Your task to perform on an android device: open chrome privacy settings Image 0: 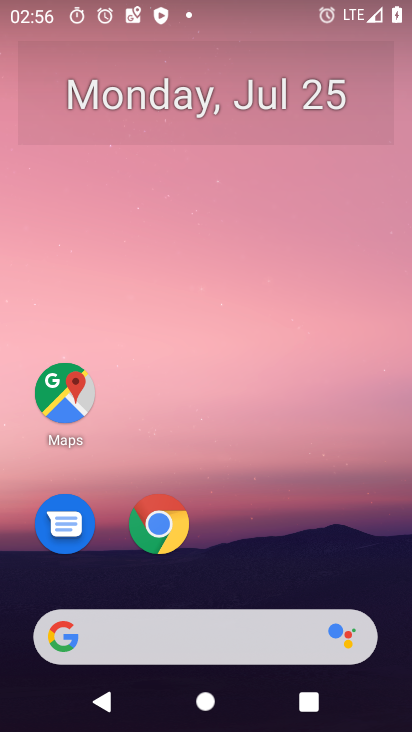
Step 0: drag from (298, 595) to (319, 431)
Your task to perform on an android device: open chrome privacy settings Image 1: 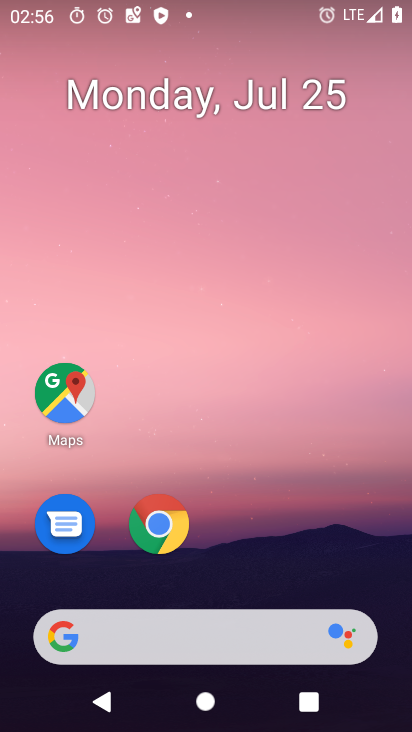
Step 1: drag from (279, 560) to (341, 50)
Your task to perform on an android device: open chrome privacy settings Image 2: 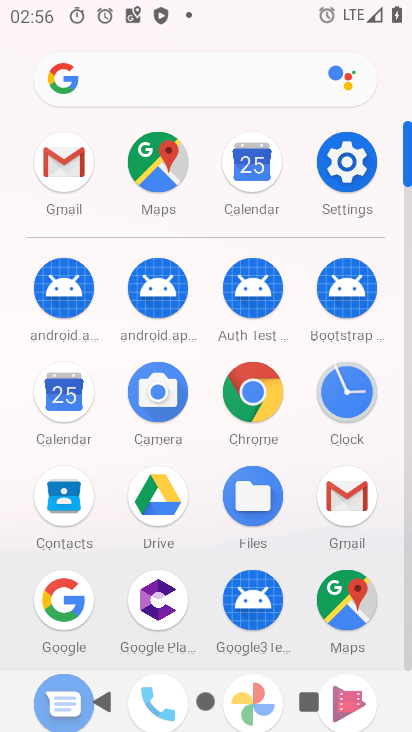
Step 2: click (261, 389)
Your task to perform on an android device: open chrome privacy settings Image 3: 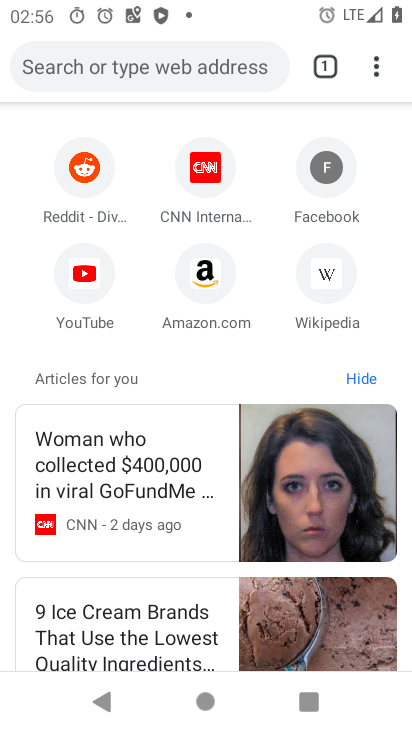
Step 3: drag from (377, 66) to (137, 558)
Your task to perform on an android device: open chrome privacy settings Image 4: 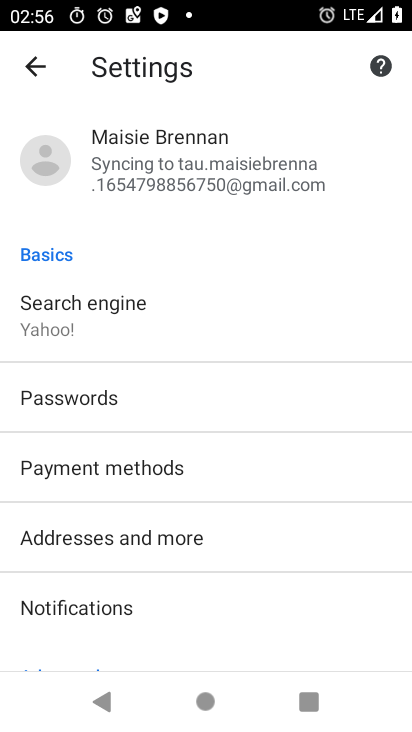
Step 4: drag from (259, 599) to (289, 30)
Your task to perform on an android device: open chrome privacy settings Image 5: 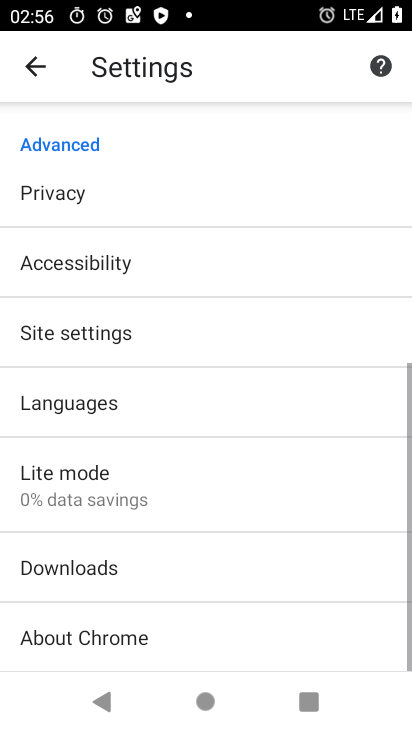
Step 5: click (52, 192)
Your task to perform on an android device: open chrome privacy settings Image 6: 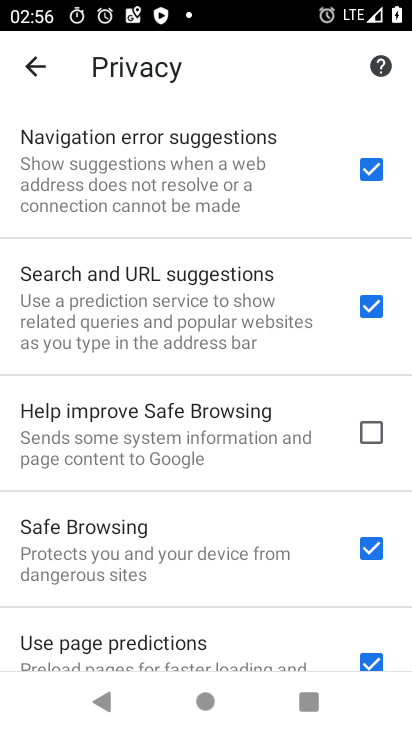
Step 6: task complete